Your task to perform on an android device: toggle location history Image 0: 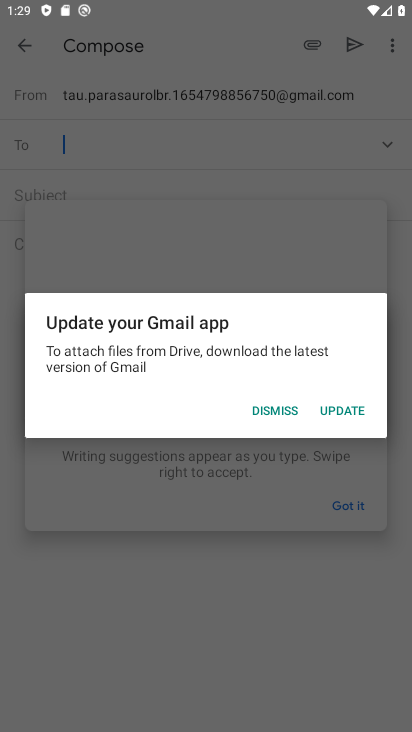
Step 0: press home button
Your task to perform on an android device: toggle location history Image 1: 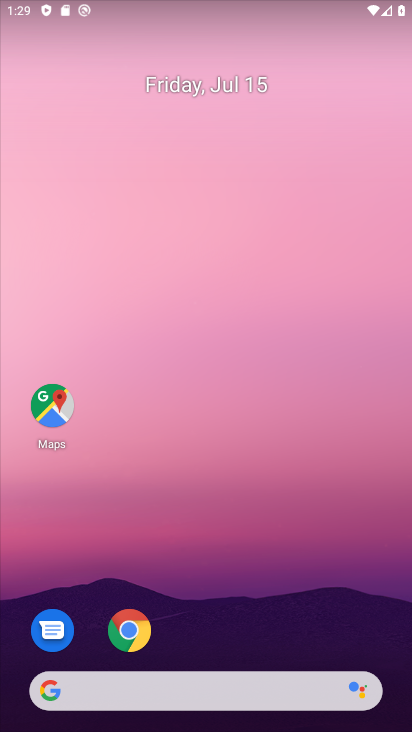
Step 1: click (52, 400)
Your task to perform on an android device: toggle location history Image 2: 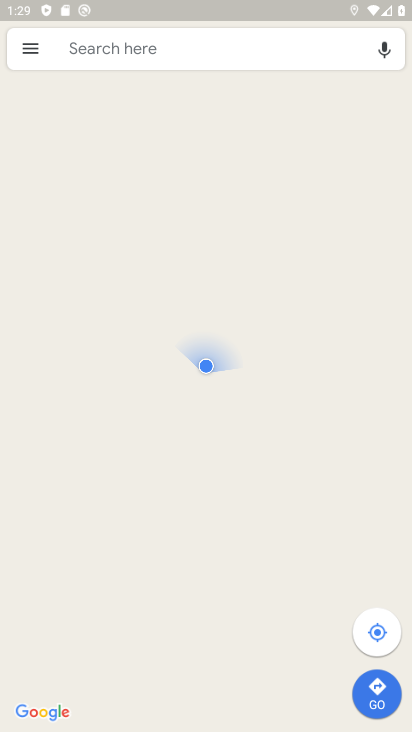
Step 2: click (27, 48)
Your task to perform on an android device: toggle location history Image 3: 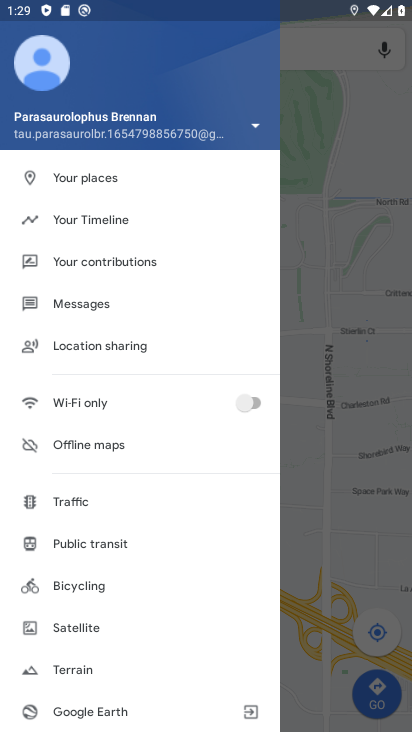
Step 3: click (88, 216)
Your task to perform on an android device: toggle location history Image 4: 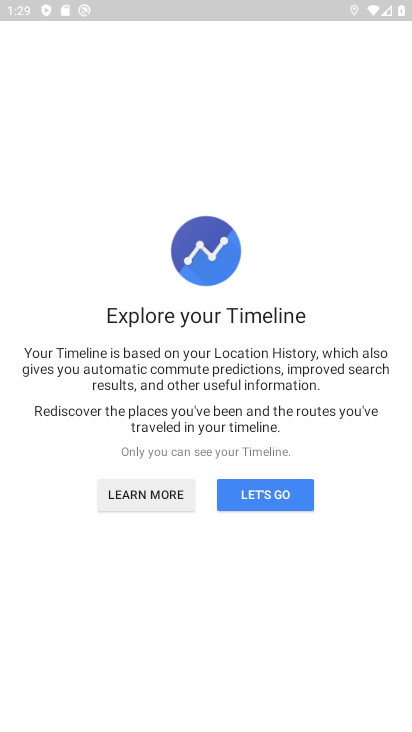
Step 4: click (244, 492)
Your task to perform on an android device: toggle location history Image 5: 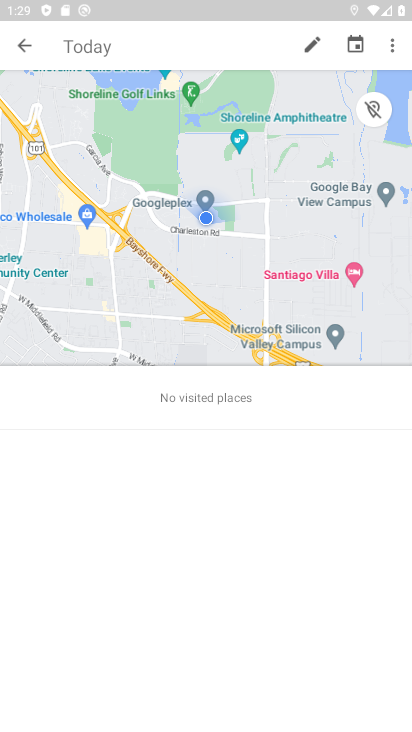
Step 5: click (391, 46)
Your task to perform on an android device: toggle location history Image 6: 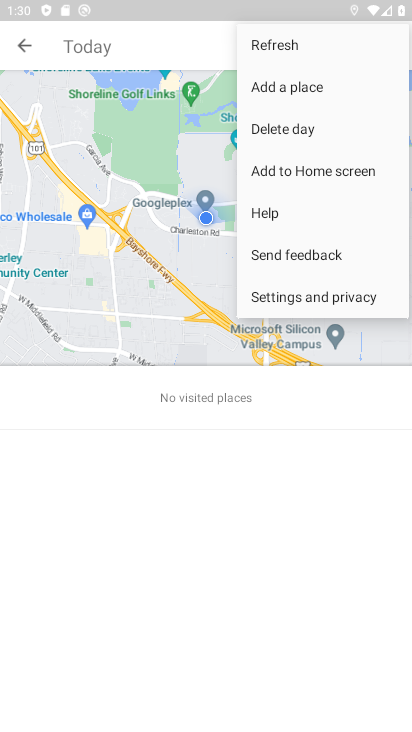
Step 6: click (275, 291)
Your task to perform on an android device: toggle location history Image 7: 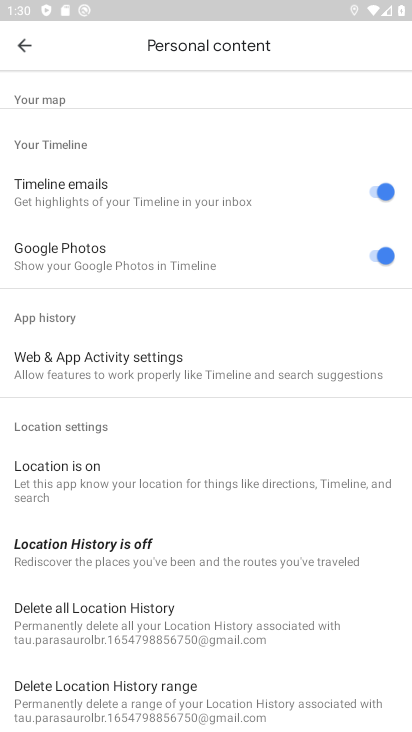
Step 7: click (81, 541)
Your task to perform on an android device: toggle location history Image 8: 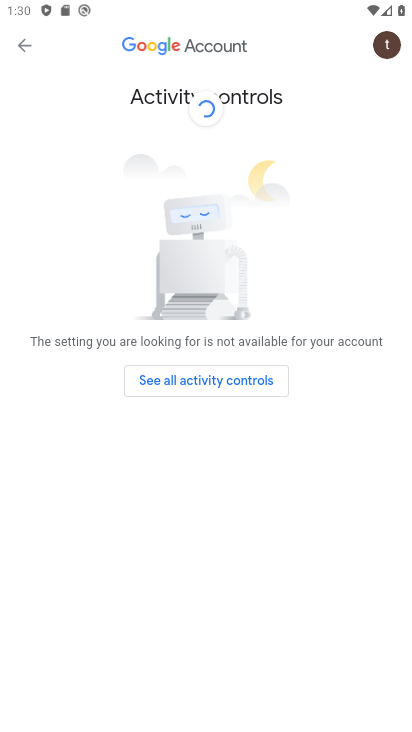
Step 8: task complete